Your task to perform on an android device: Open settings Image 0: 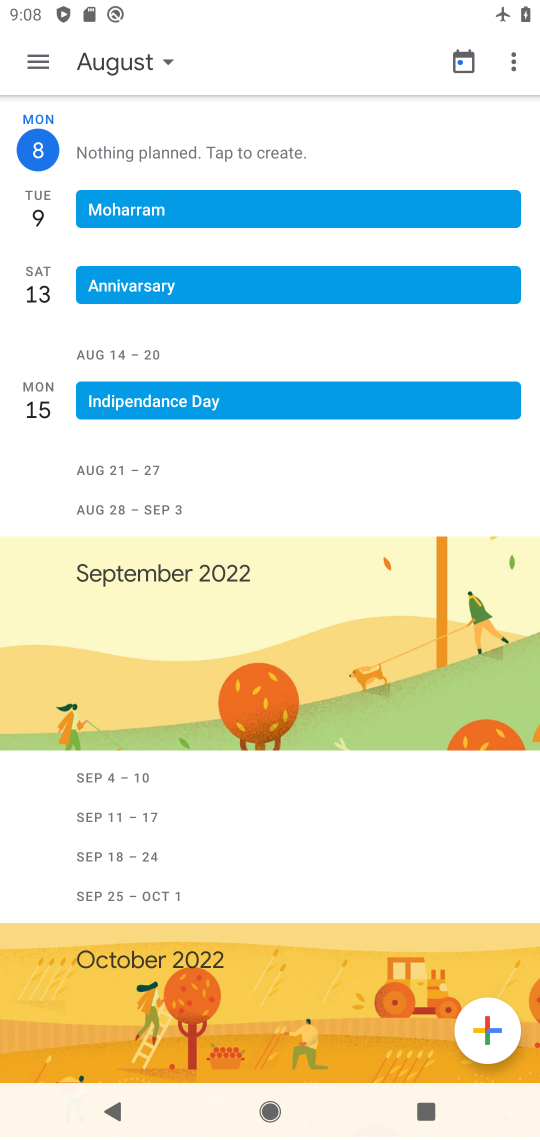
Step 0: press home button
Your task to perform on an android device: Open settings Image 1: 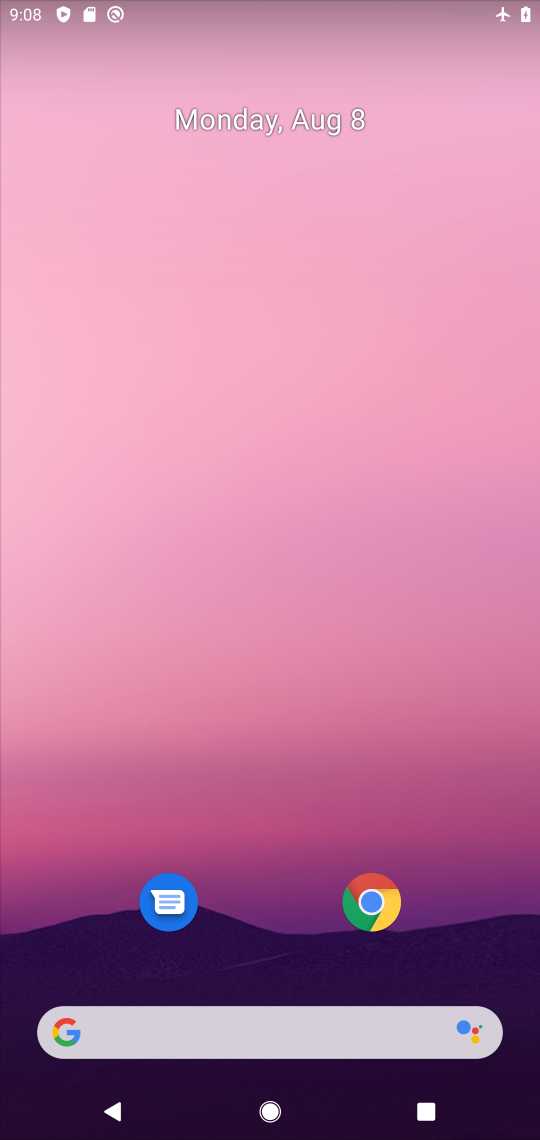
Step 1: drag from (260, 993) to (261, 33)
Your task to perform on an android device: Open settings Image 2: 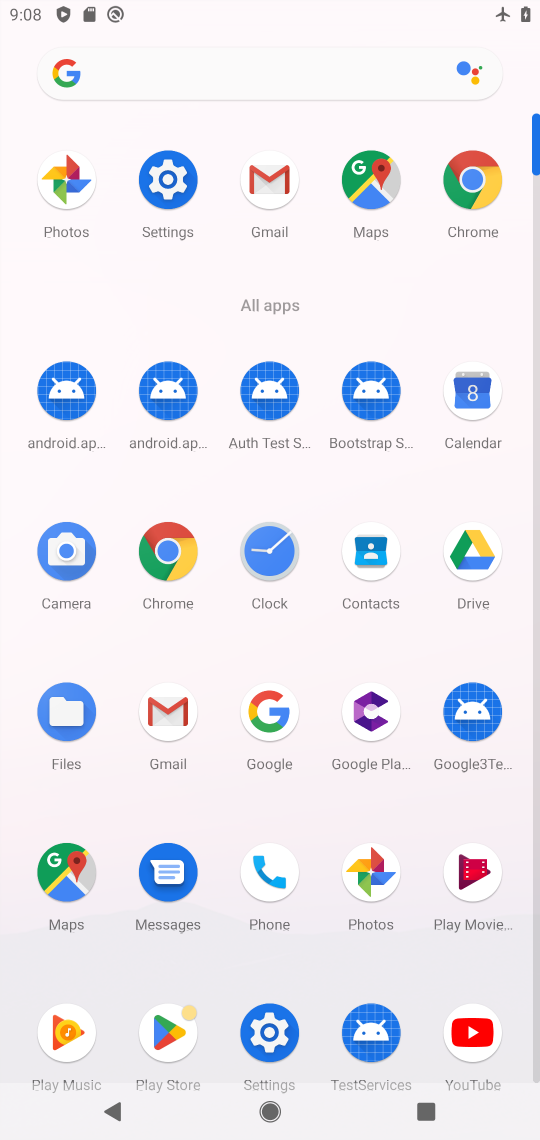
Step 2: click (157, 208)
Your task to perform on an android device: Open settings Image 3: 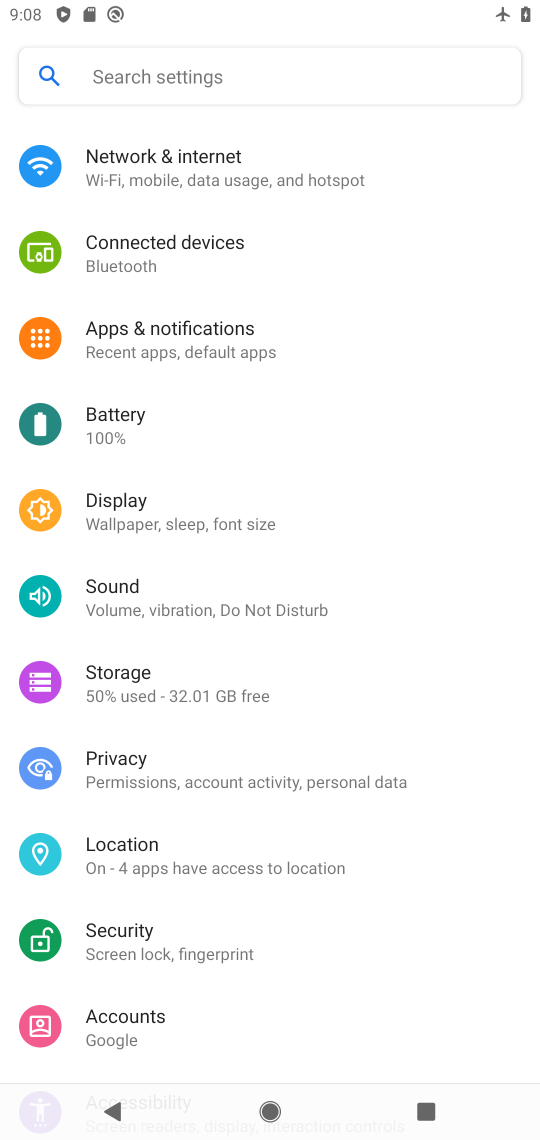
Step 3: task complete